Your task to perform on an android device: Open Maps and search for coffee Image 0: 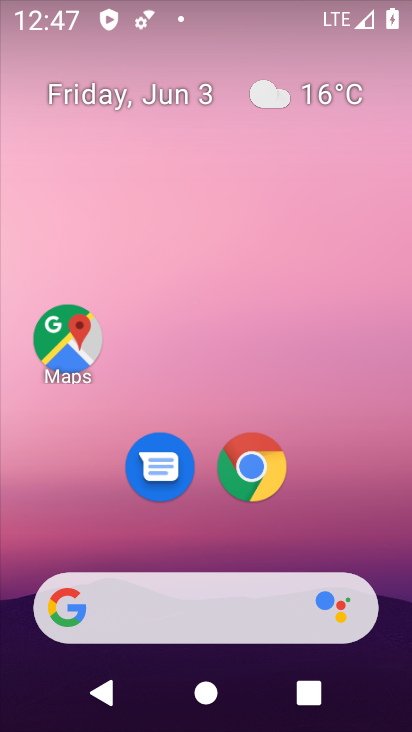
Step 0: click (69, 352)
Your task to perform on an android device: Open Maps and search for coffee Image 1: 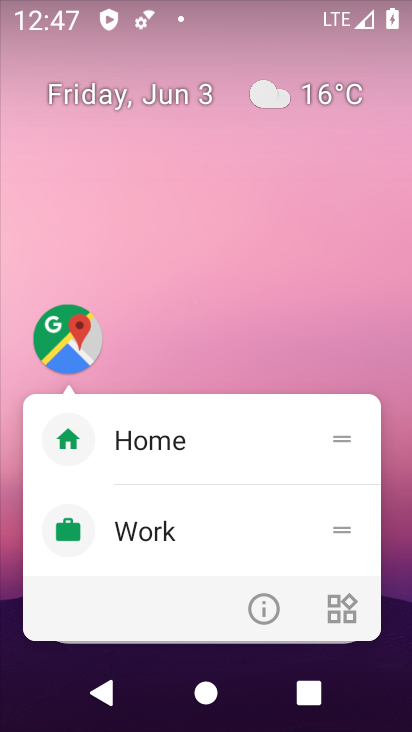
Step 1: click (72, 351)
Your task to perform on an android device: Open Maps and search for coffee Image 2: 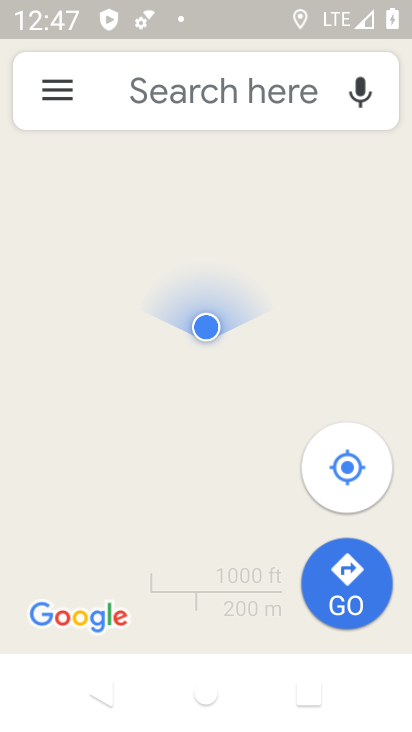
Step 2: click (182, 114)
Your task to perform on an android device: Open Maps and search for coffee Image 3: 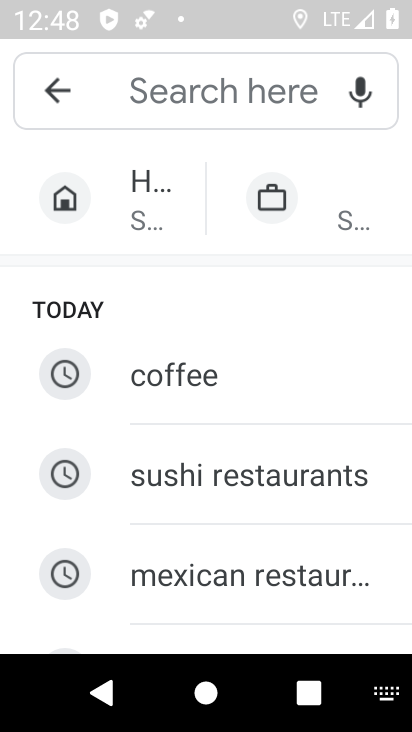
Step 3: type "Coffee "
Your task to perform on an android device: Open Maps and search for coffee Image 4: 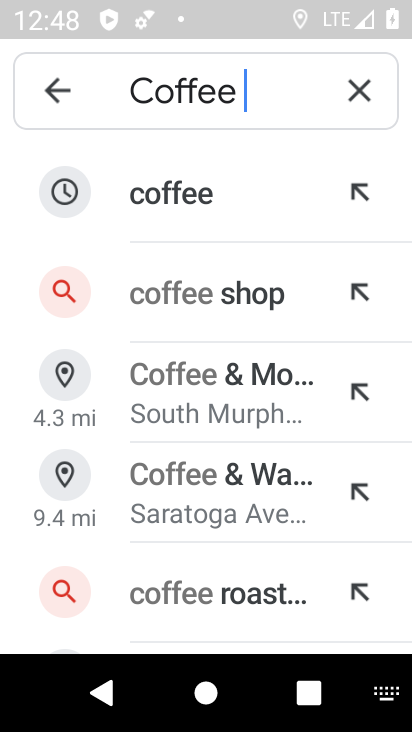
Step 4: click (224, 223)
Your task to perform on an android device: Open Maps and search for coffee Image 5: 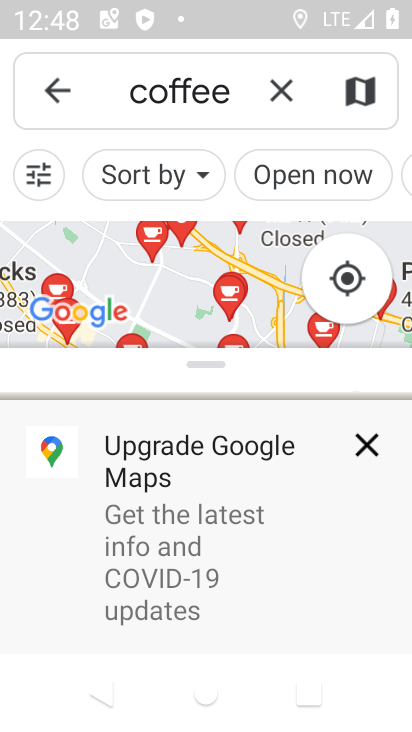
Step 5: task complete